Your task to perform on an android device: Go to battery settings Image 0: 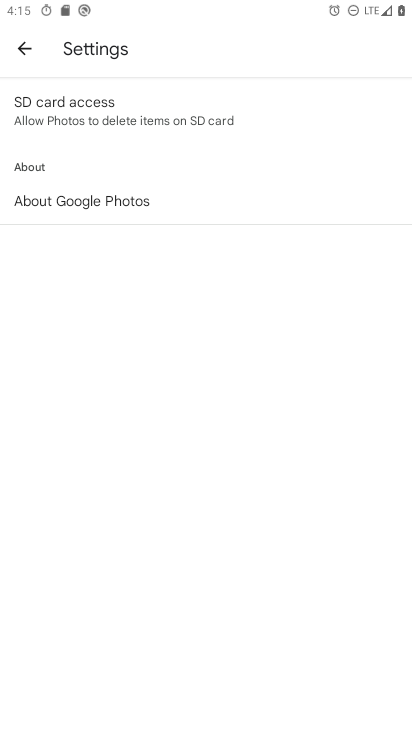
Step 0: press home button
Your task to perform on an android device: Go to battery settings Image 1: 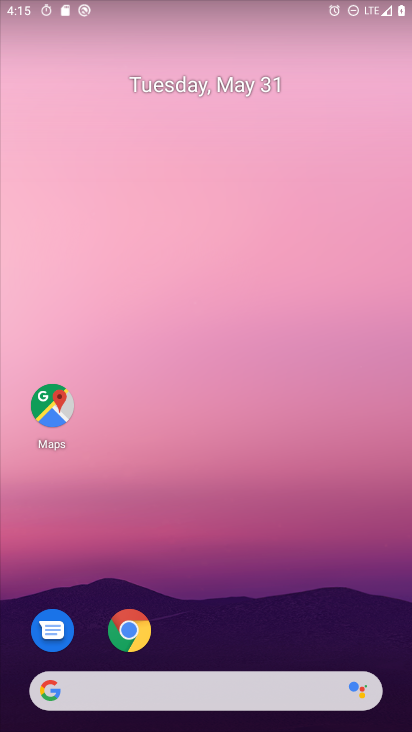
Step 1: drag from (185, 580) to (206, 135)
Your task to perform on an android device: Go to battery settings Image 2: 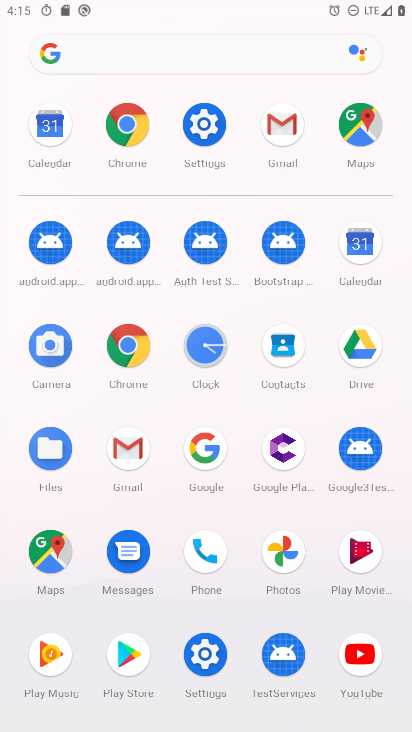
Step 2: click (207, 122)
Your task to perform on an android device: Go to battery settings Image 3: 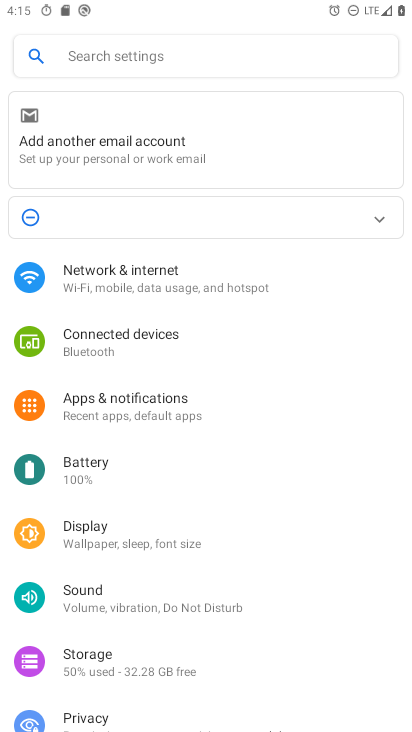
Step 3: click (169, 482)
Your task to perform on an android device: Go to battery settings Image 4: 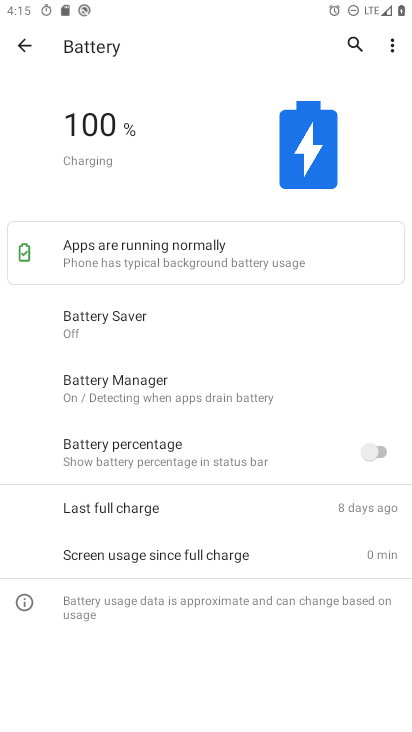
Step 4: task complete